Your task to perform on an android device: Go to Wikipedia Image 0: 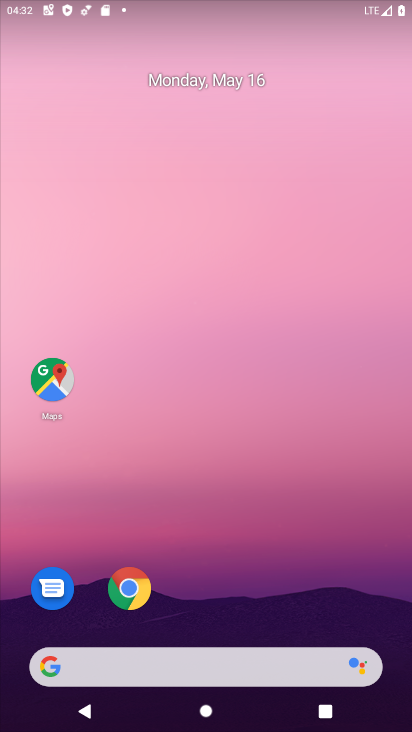
Step 0: drag from (273, 538) to (197, 25)
Your task to perform on an android device: Go to Wikipedia Image 1: 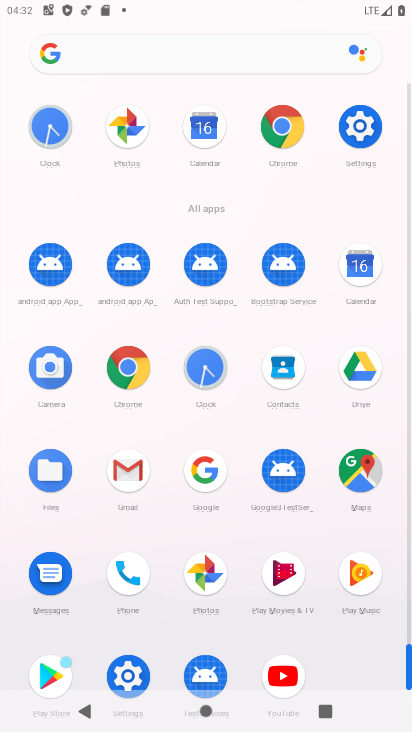
Step 1: drag from (10, 379) to (32, 186)
Your task to perform on an android device: Go to Wikipedia Image 2: 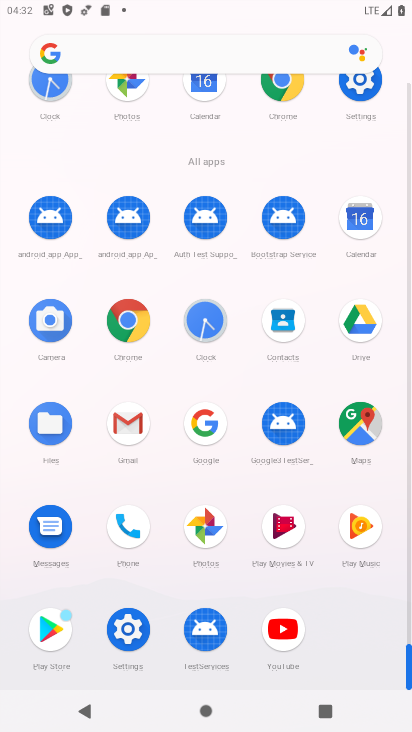
Step 2: click (286, 81)
Your task to perform on an android device: Go to Wikipedia Image 3: 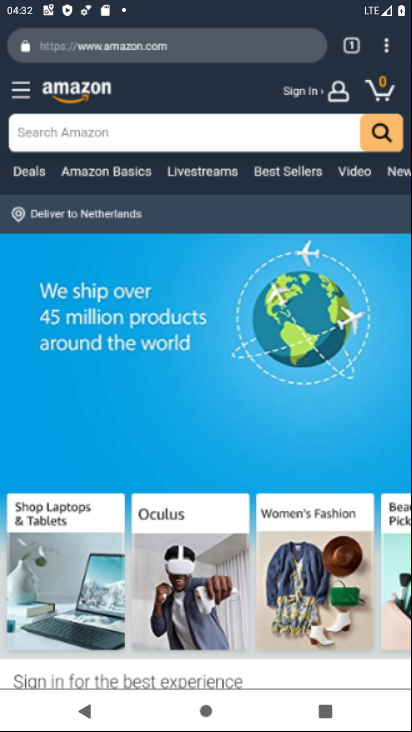
Step 3: click (193, 55)
Your task to perform on an android device: Go to Wikipedia Image 4: 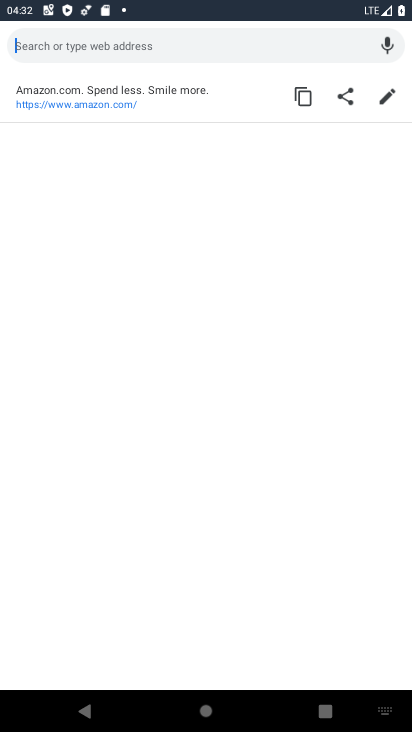
Step 4: type " Wikipedia"
Your task to perform on an android device: Go to Wikipedia Image 5: 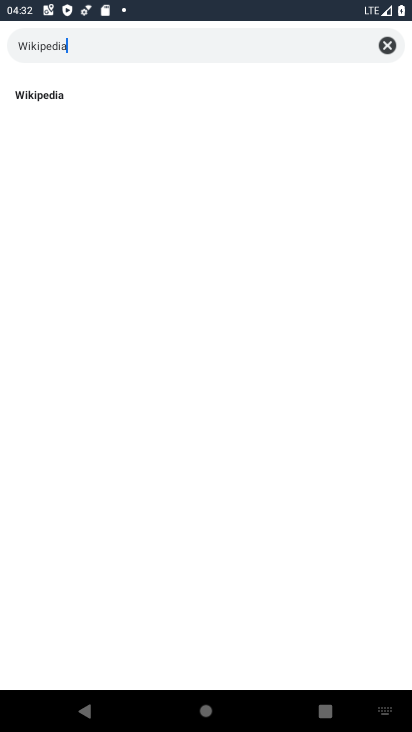
Step 5: type ""
Your task to perform on an android device: Go to Wikipedia Image 6: 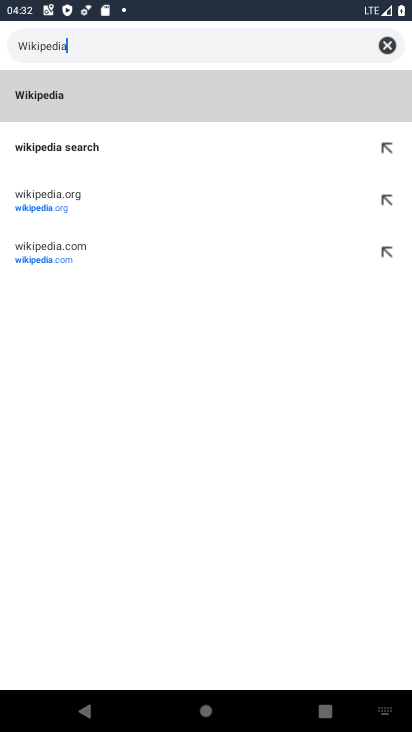
Step 6: click (85, 100)
Your task to perform on an android device: Go to Wikipedia Image 7: 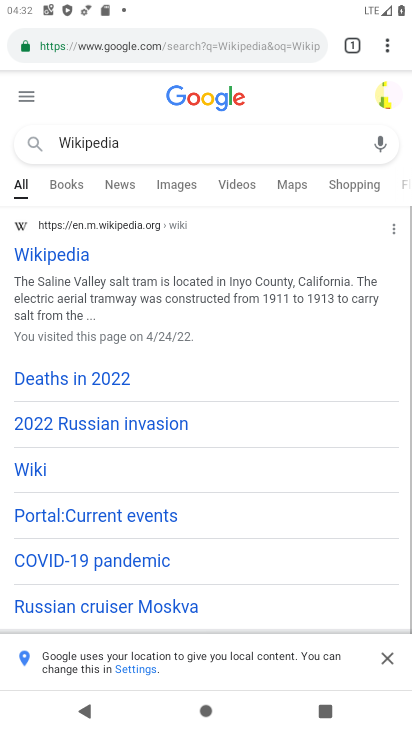
Step 7: click (74, 247)
Your task to perform on an android device: Go to Wikipedia Image 8: 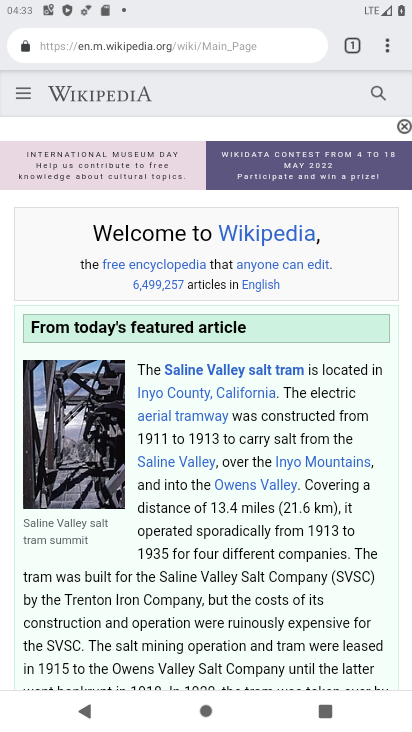
Step 8: task complete